Your task to perform on an android device: uninstall "Gmail" Image 0: 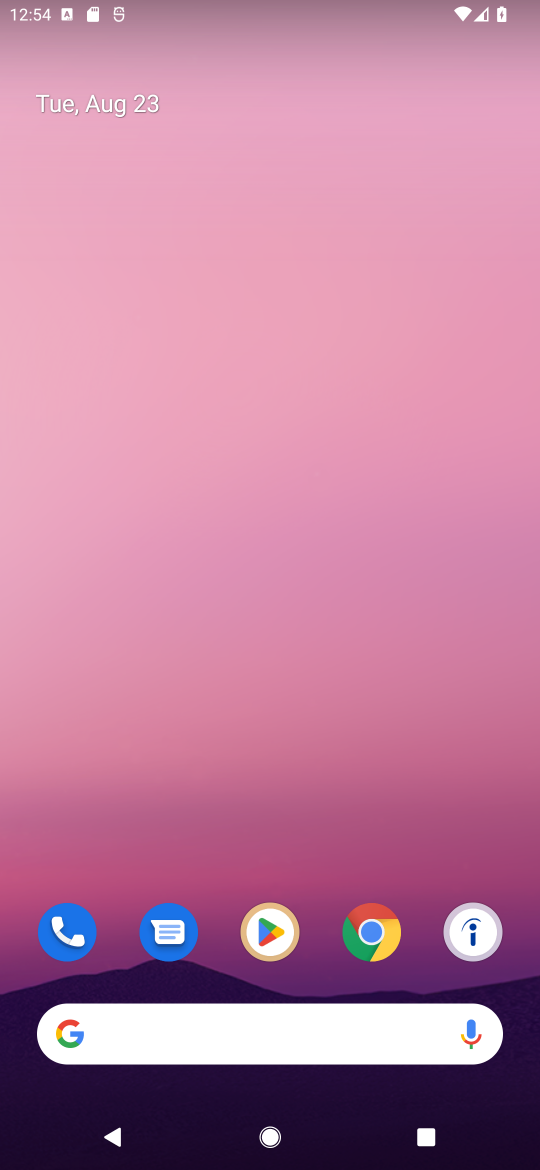
Step 0: click (267, 925)
Your task to perform on an android device: uninstall "Gmail" Image 1: 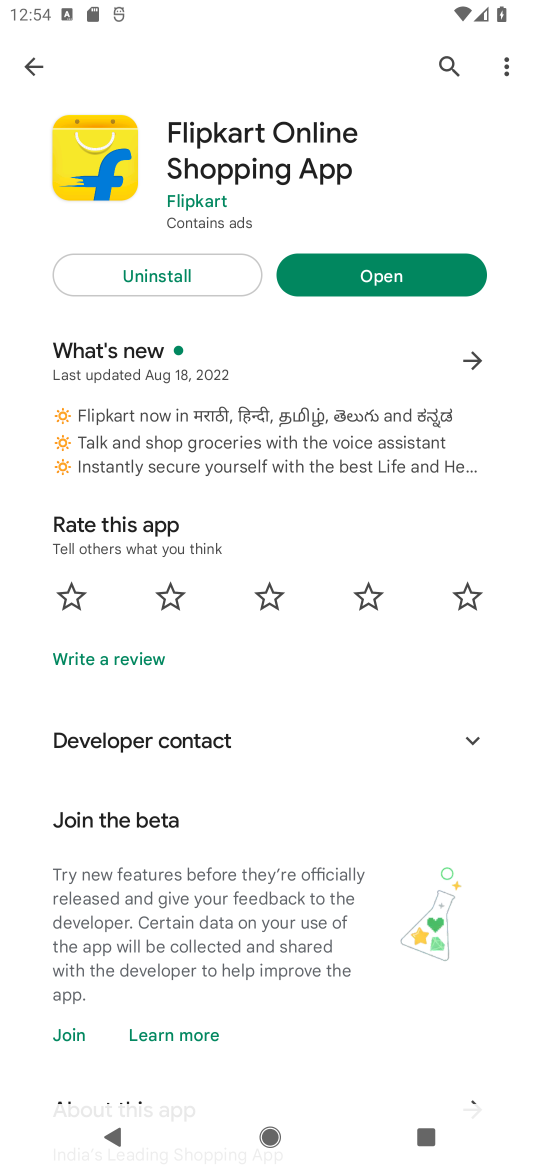
Step 1: click (469, 70)
Your task to perform on an android device: uninstall "Gmail" Image 2: 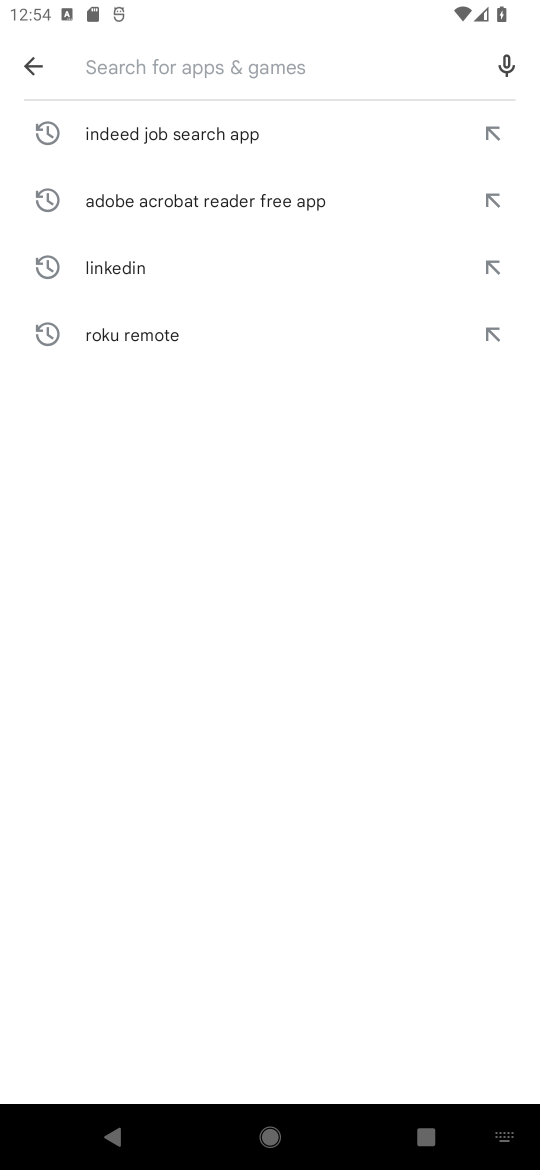
Step 2: type "Gmail""
Your task to perform on an android device: uninstall "Gmail" Image 3: 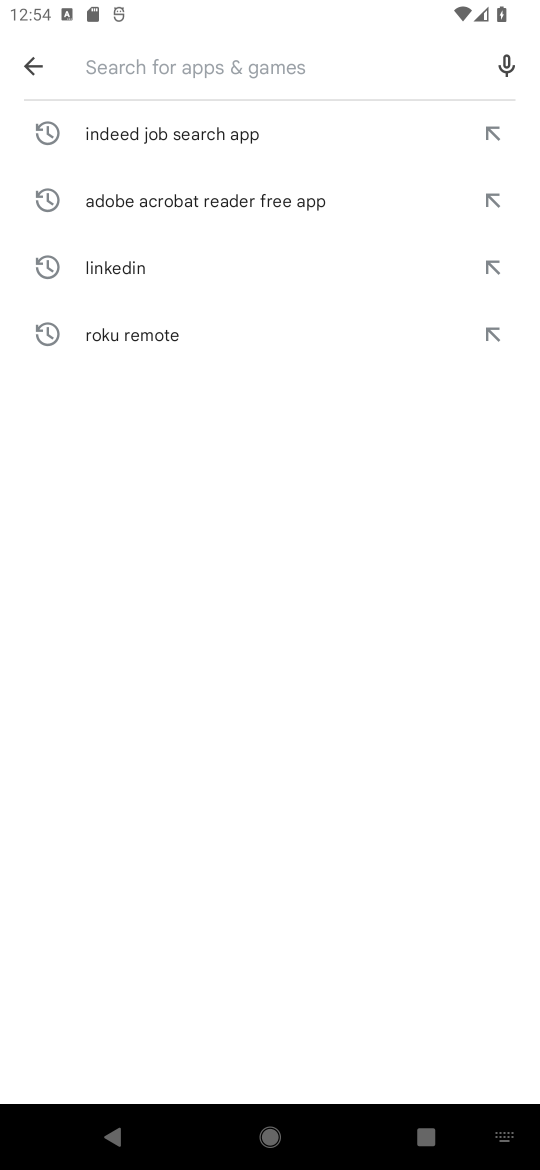
Step 3: click (446, 665)
Your task to perform on an android device: uninstall "Gmail" Image 4: 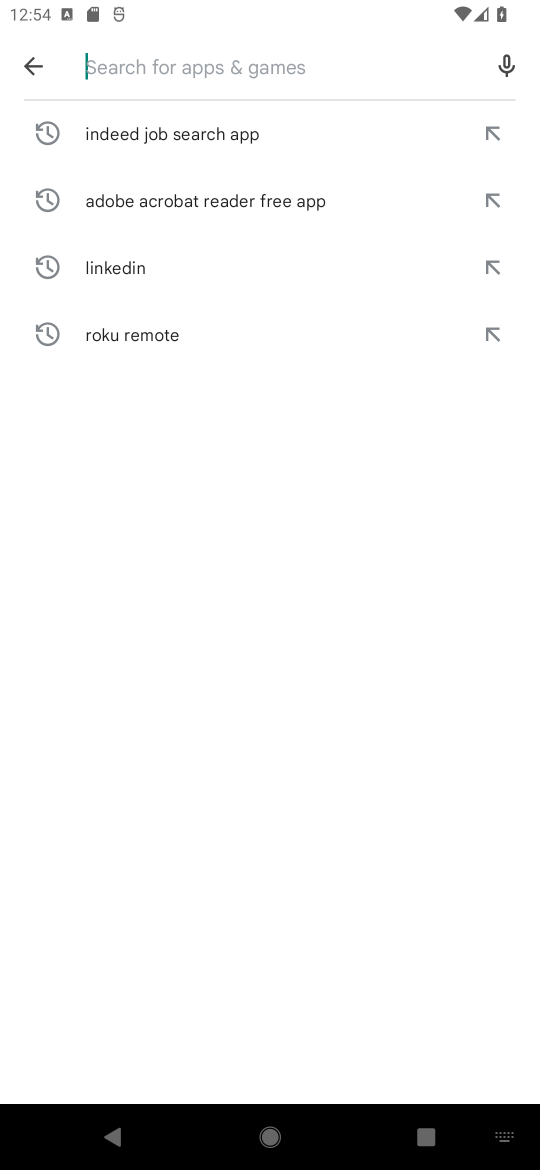
Step 4: click (202, 73)
Your task to perform on an android device: uninstall "Gmail" Image 5: 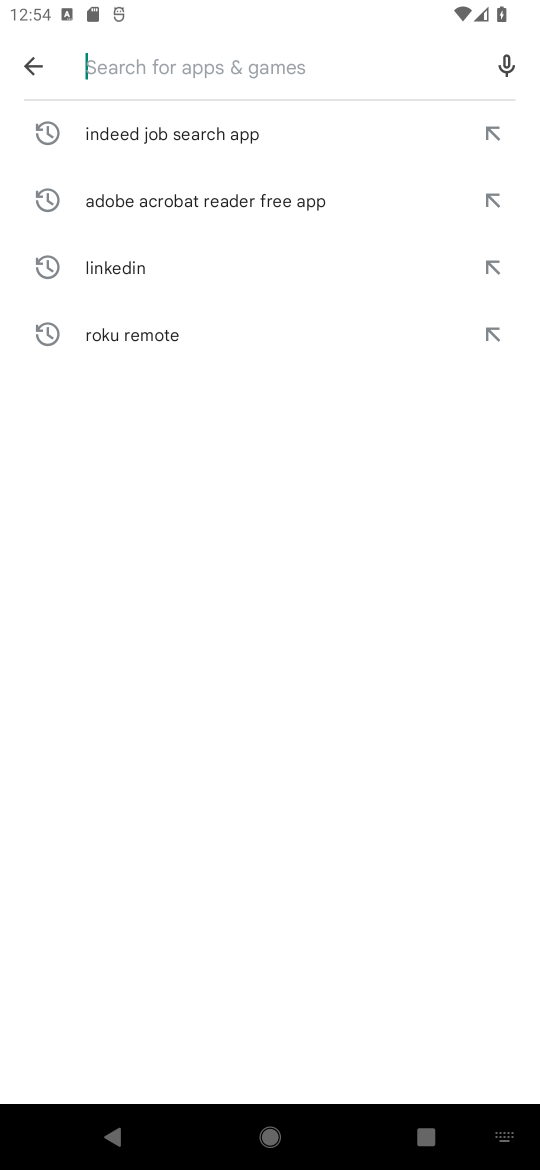
Step 5: type "Gmail"
Your task to perform on an android device: uninstall "Gmail" Image 6: 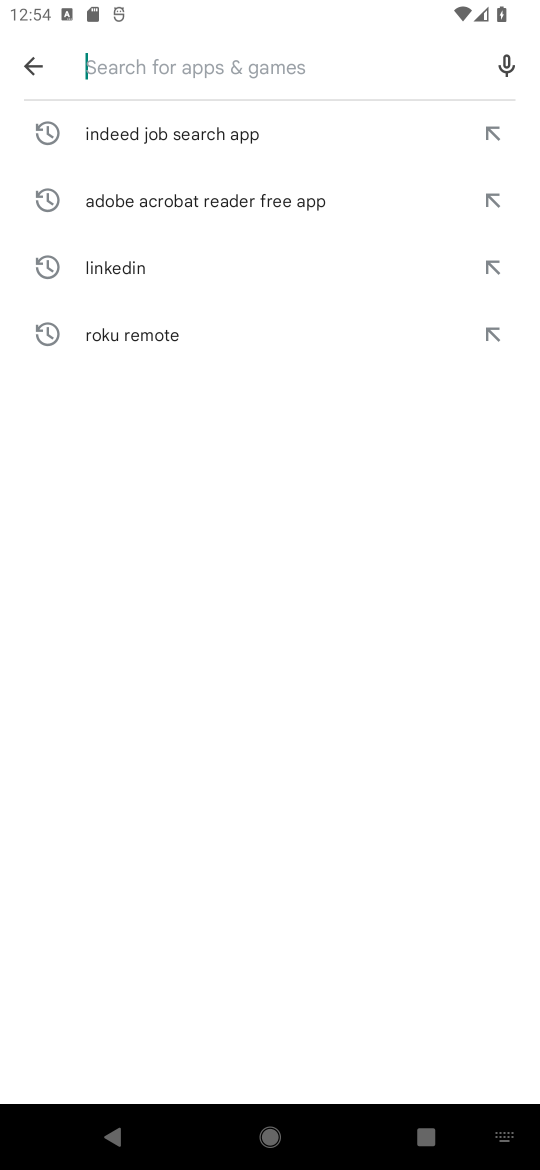
Step 6: click (463, 630)
Your task to perform on an android device: uninstall "Gmail" Image 7: 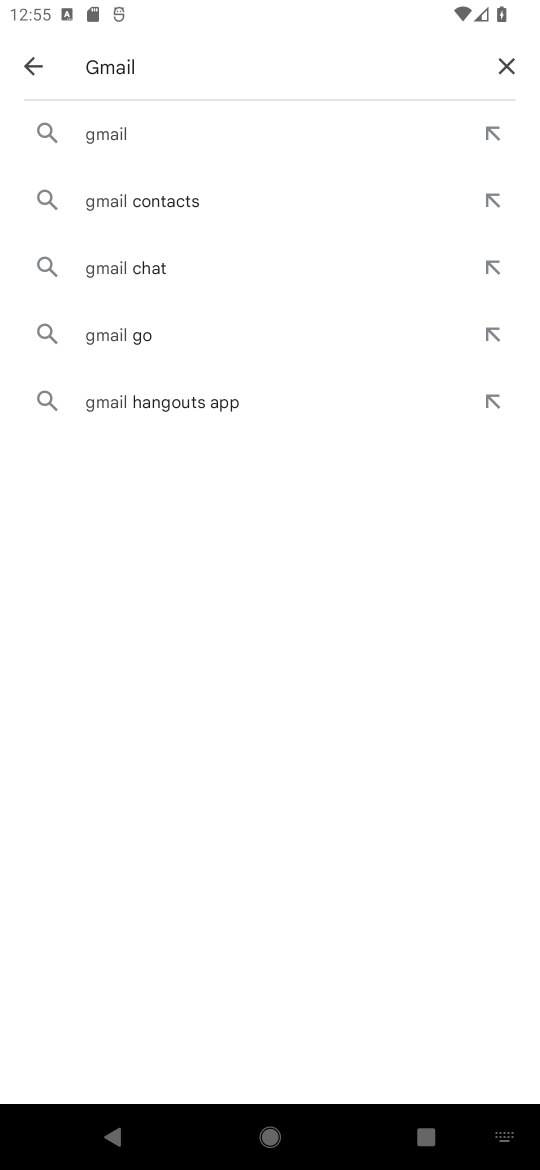
Step 7: press home button
Your task to perform on an android device: uninstall "Gmail" Image 8: 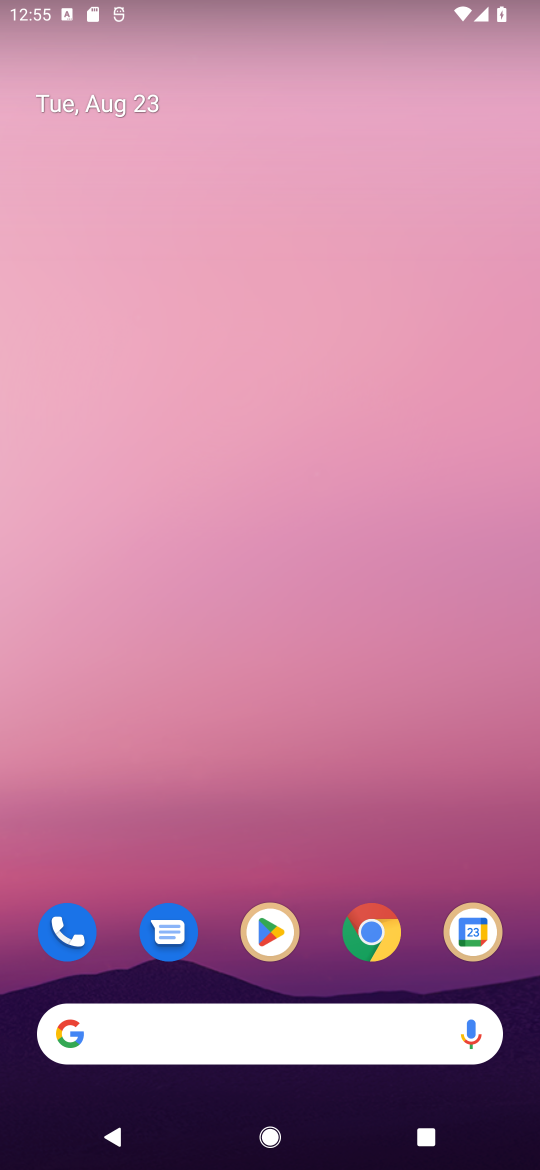
Step 8: click (274, 921)
Your task to perform on an android device: uninstall "Gmail" Image 9: 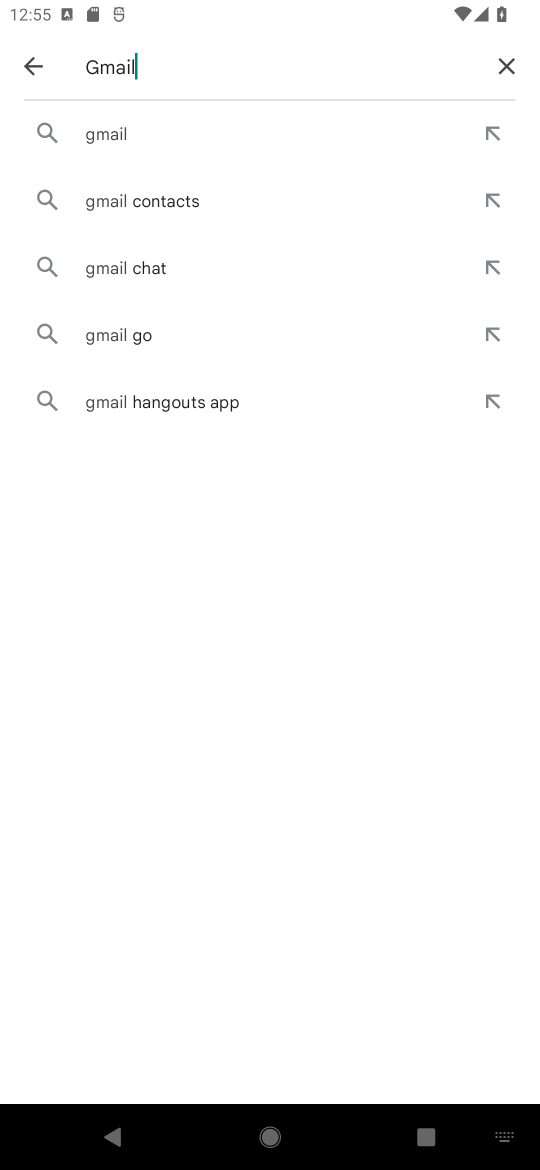
Step 9: click (106, 128)
Your task to perform on an android device: uninstall "Gmail" Image 10: 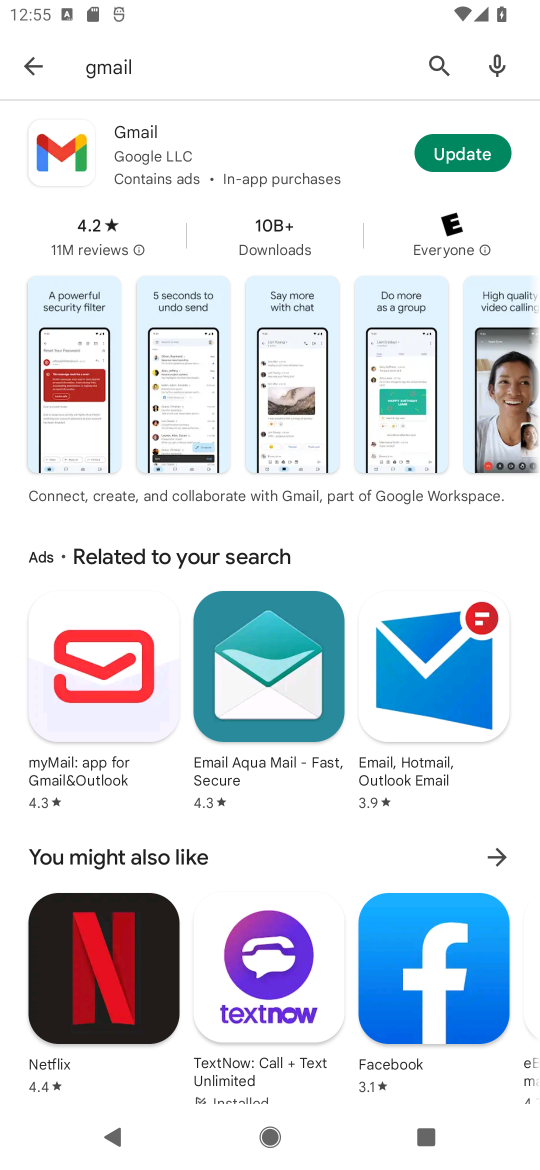
Step 10: click (163, 131)
Your task to perform on an android device: uninstall "Gmail" Image 11: 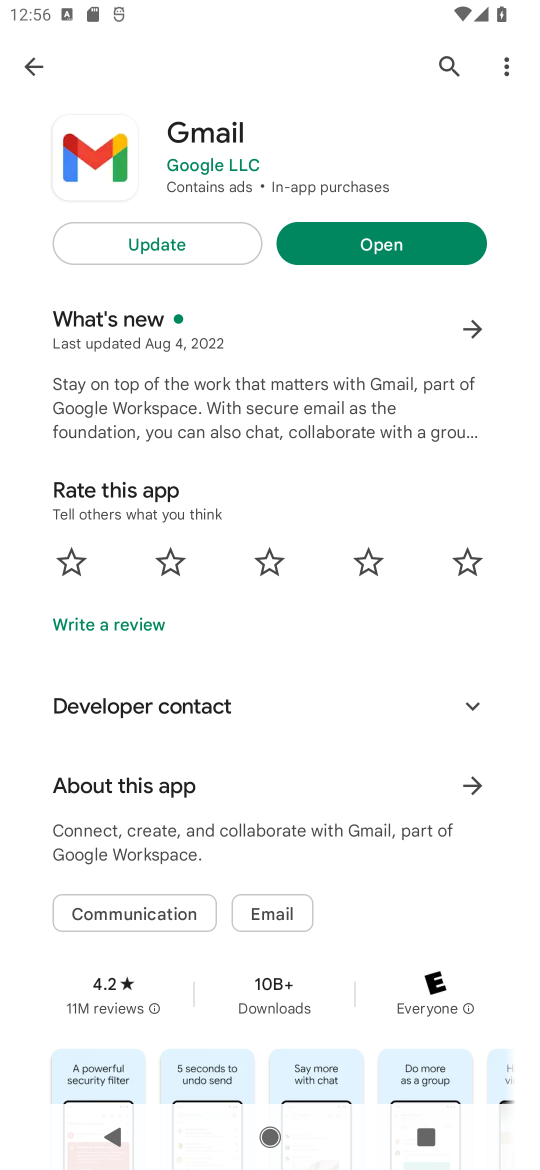
Step 11: task complete